Your task to perform on an android device: Clear the shopping cart on costco.com. Add macbook pro 13 inch to the cart on costco.com, then select checkout. Image 0: 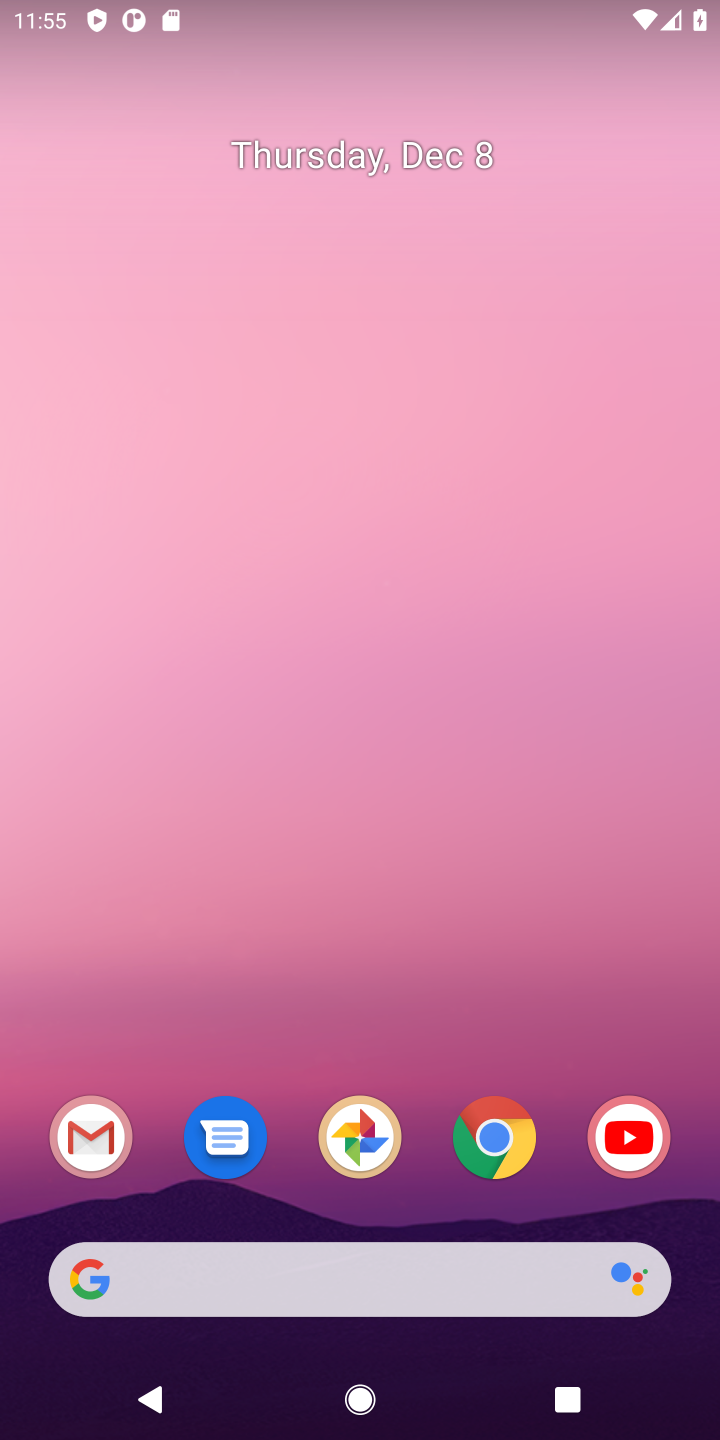
Step 0: click (494, 1132)
Your task to perform on an android device: Clear the shopping cart on costco.com. Add macbook pro 13 inch to the cart on costco.com, then select checkout. Image 1: 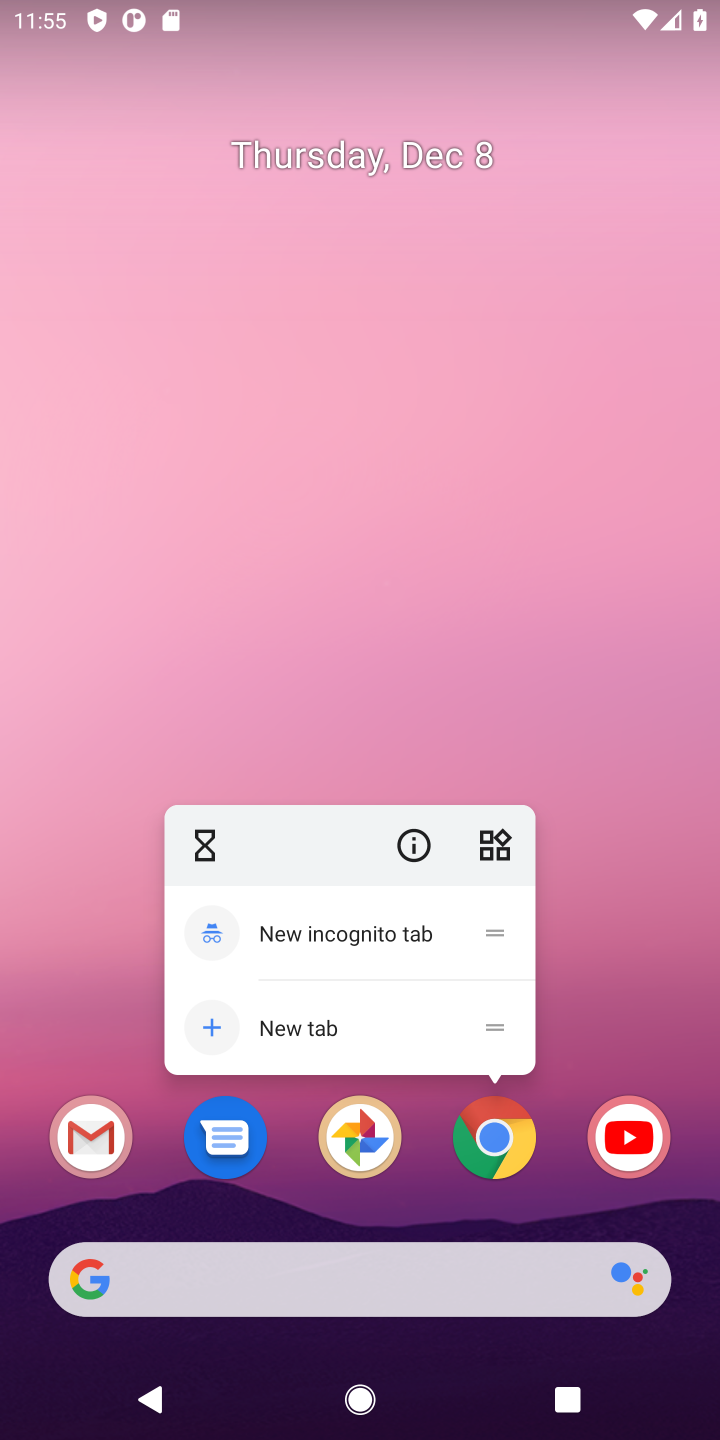
Step 1: click (498, 1128)
Your task to perform on an android device: Clear the shopping cart on costco.com. Add macbook pro 13 inch to the cart on costco.com, then select checkout. Image 2: 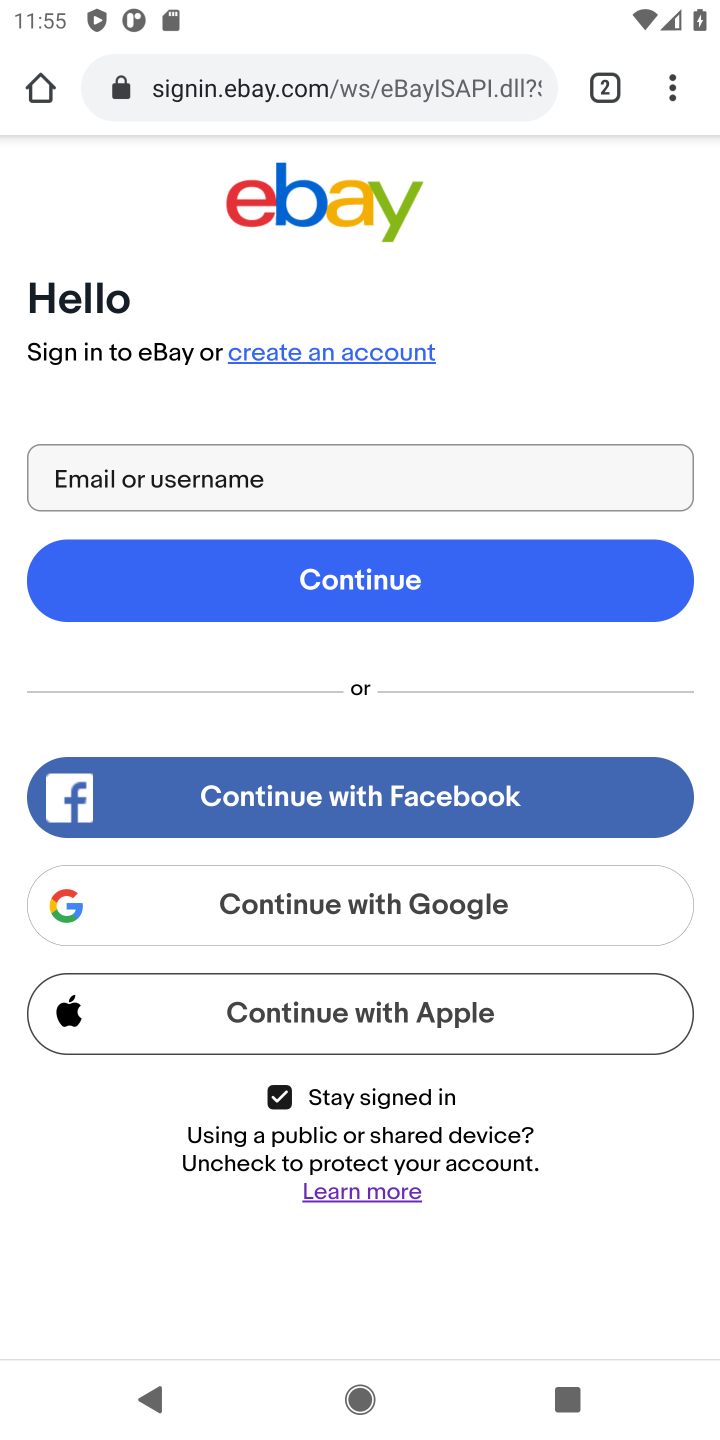
Step 2: click (424, 82)
Your task to perform on an android device: Clear the shopping cart on costco.com. Add macbook pro 13 inch to the cart on costco.com, then select checkout. Image 3: 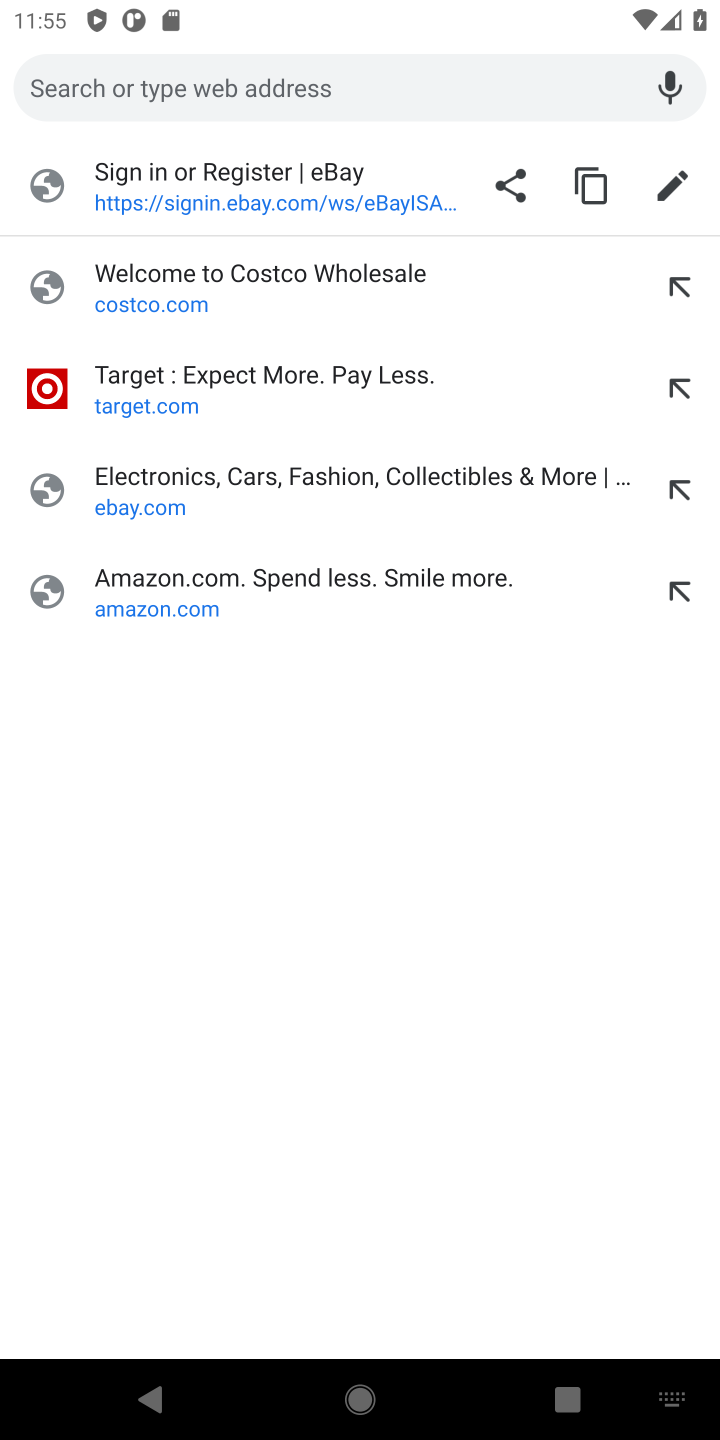
Step 3: click (166, 294)
Your task to perform on an android device: Clear the shopping cart on costco.com. Add macbook pro 13 inch to the cart on costco.com, then select checkout. Image 4: 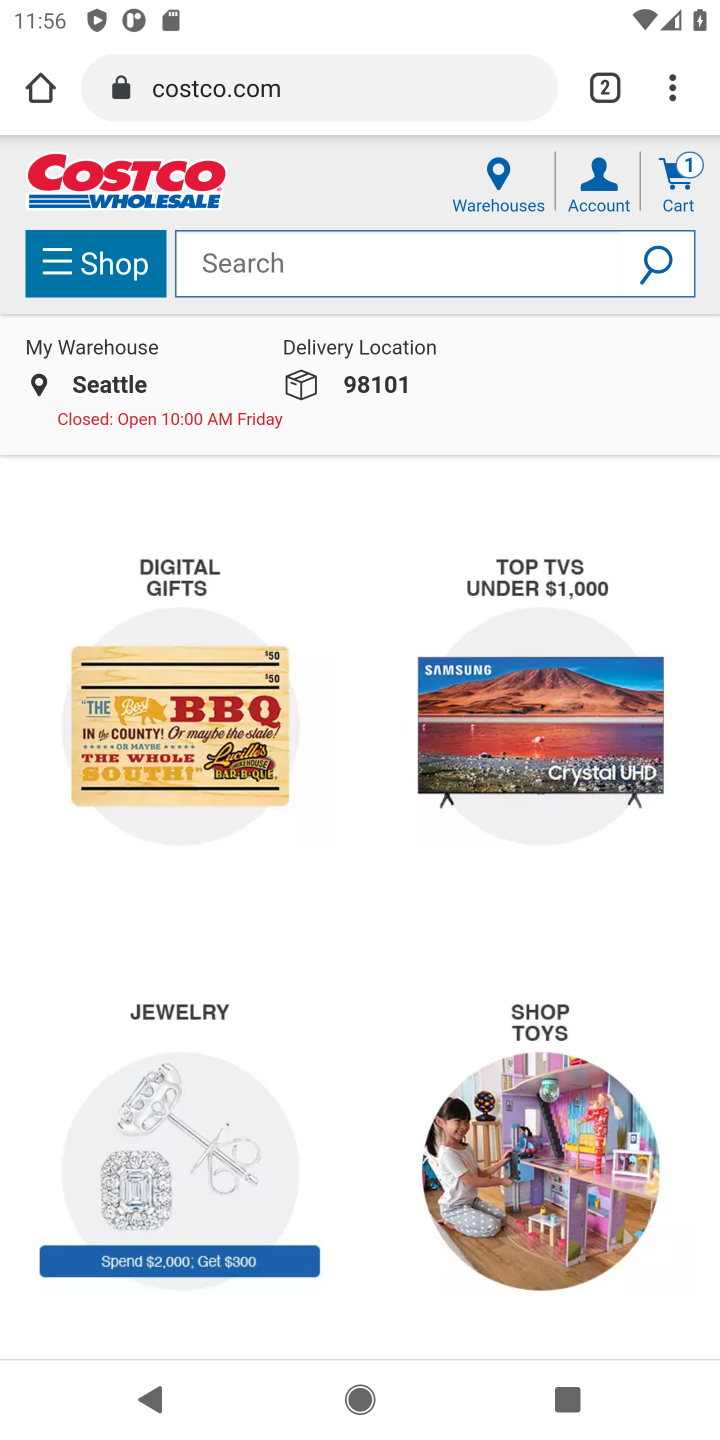
Step 4: click (685, 171)
Your task to perform on an android device: Clear the shopping cart on costco.com. Add macbook pro 13 inch to the cart on costco.com, then select checkout. Image 5: 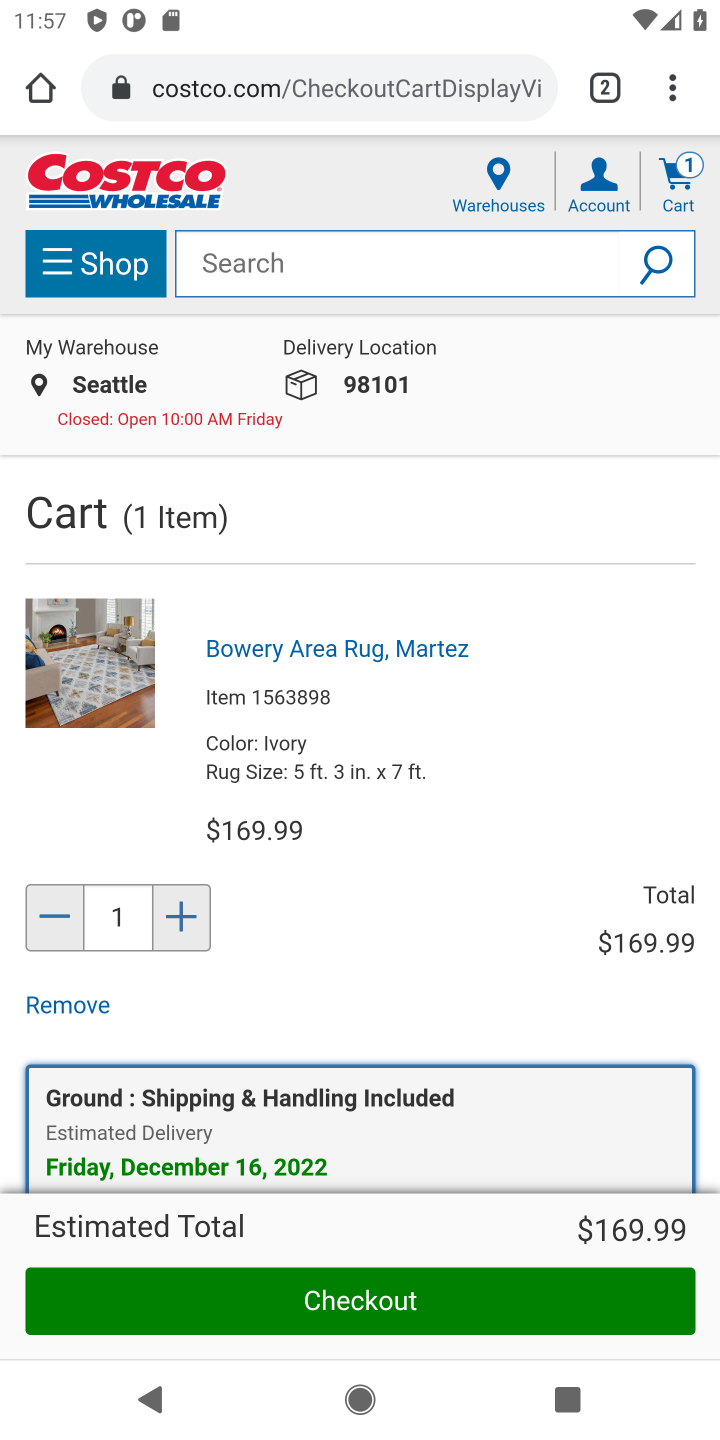
Step 5: click (83, 1005)
Your task to perform on an android device: Clear the shopping cart on costco.com. Add macbook pro 13 inch to the cart on costco.com, then select checkout. Image 6: 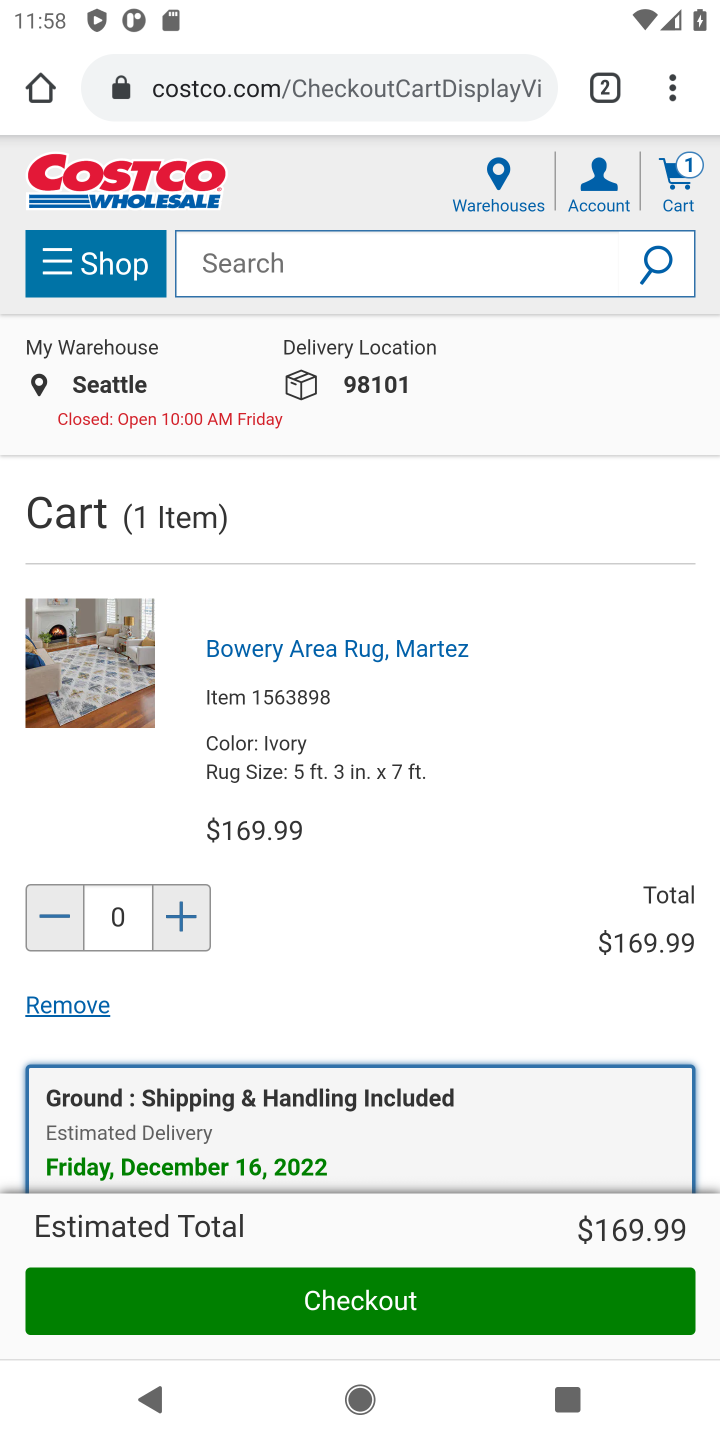
Step 6: click (76, 1009)
Your task to perform on an android device: Clear the shopping cart on costco.com. Add macbook pro 13 inch to the cart on costco.com, then select checkout. Image 7: 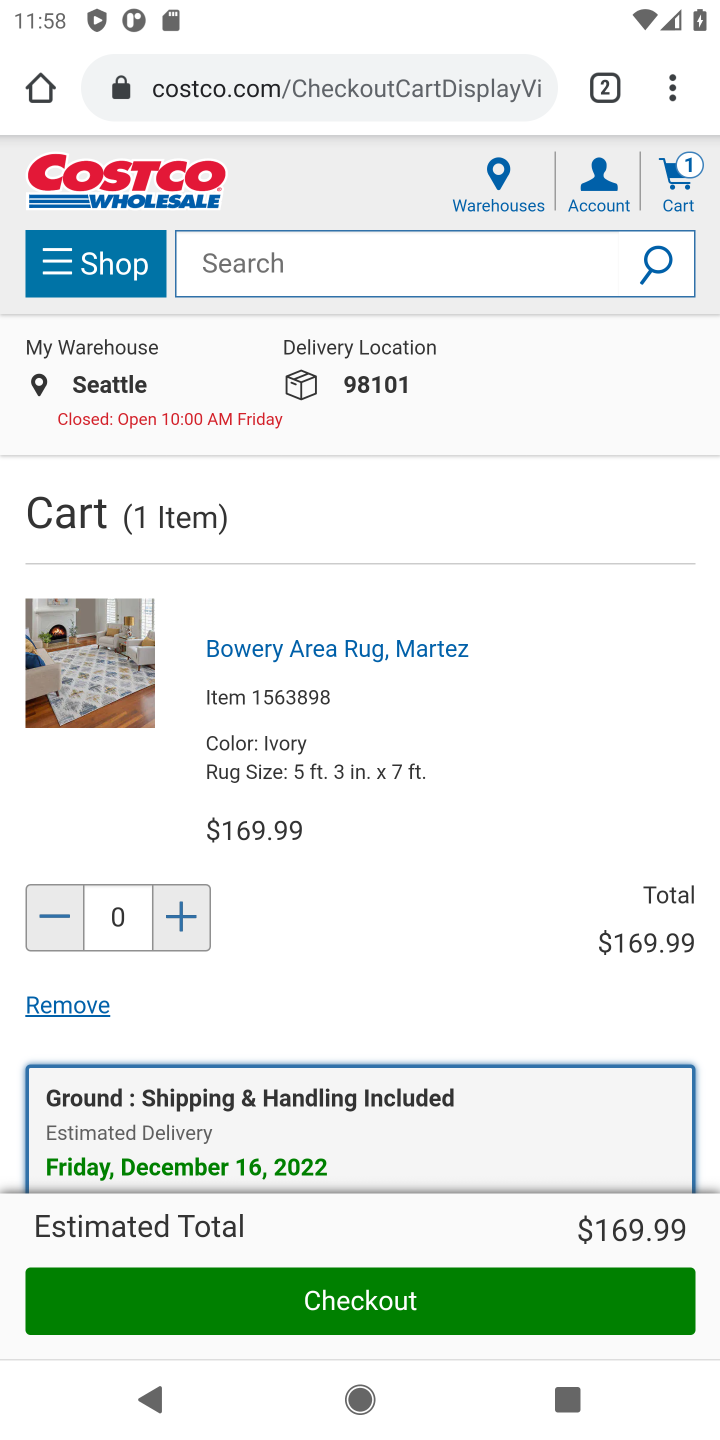
Step 7: click (76, 1009)
Your task to perform on an android device: Clear the shopping cart on costco.com. Add macbook pro 13 inch to the cart on costco.com, then select checkout. Image 8: 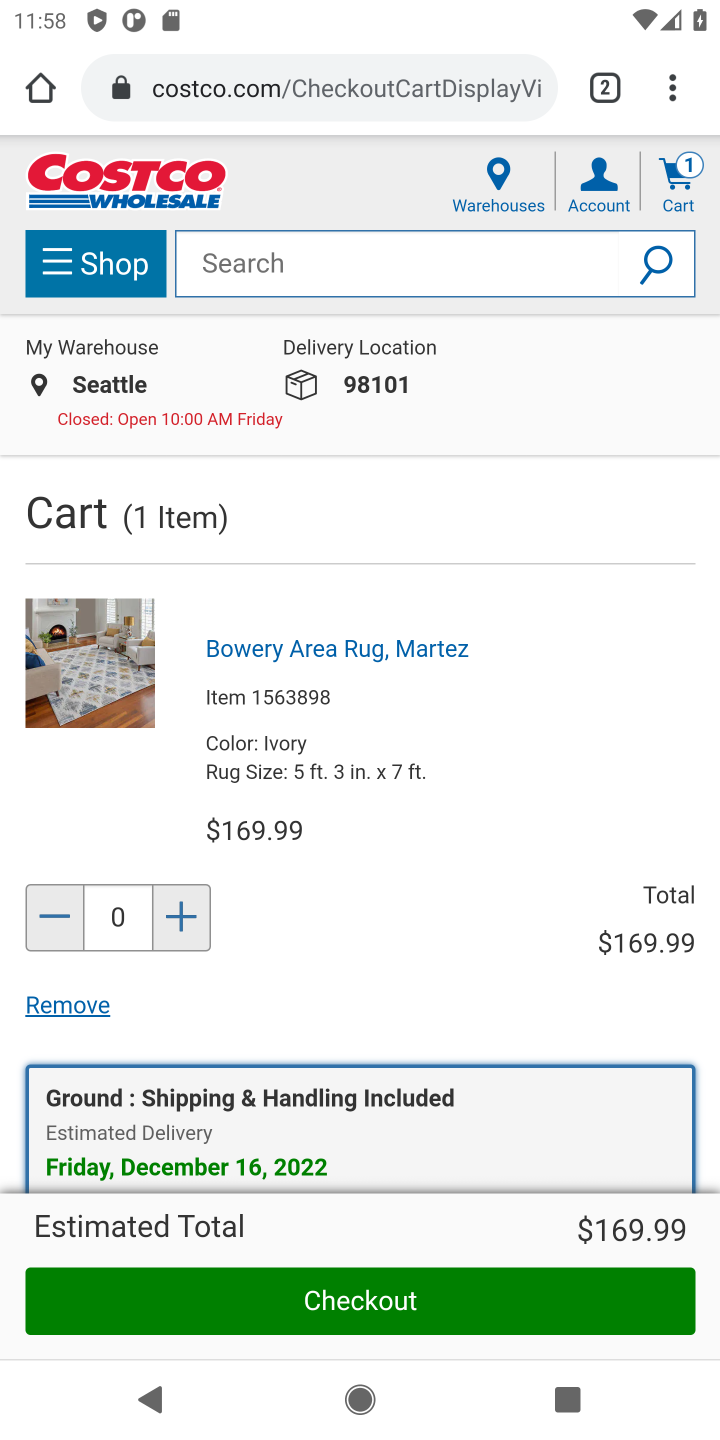
Step 8: click (47, 1006)
Your task to perform on an android device: Clear the shopping cart on costco.com. Add macbook pro 13 inch to the cart on costco.com, then select checkout. Image 9: 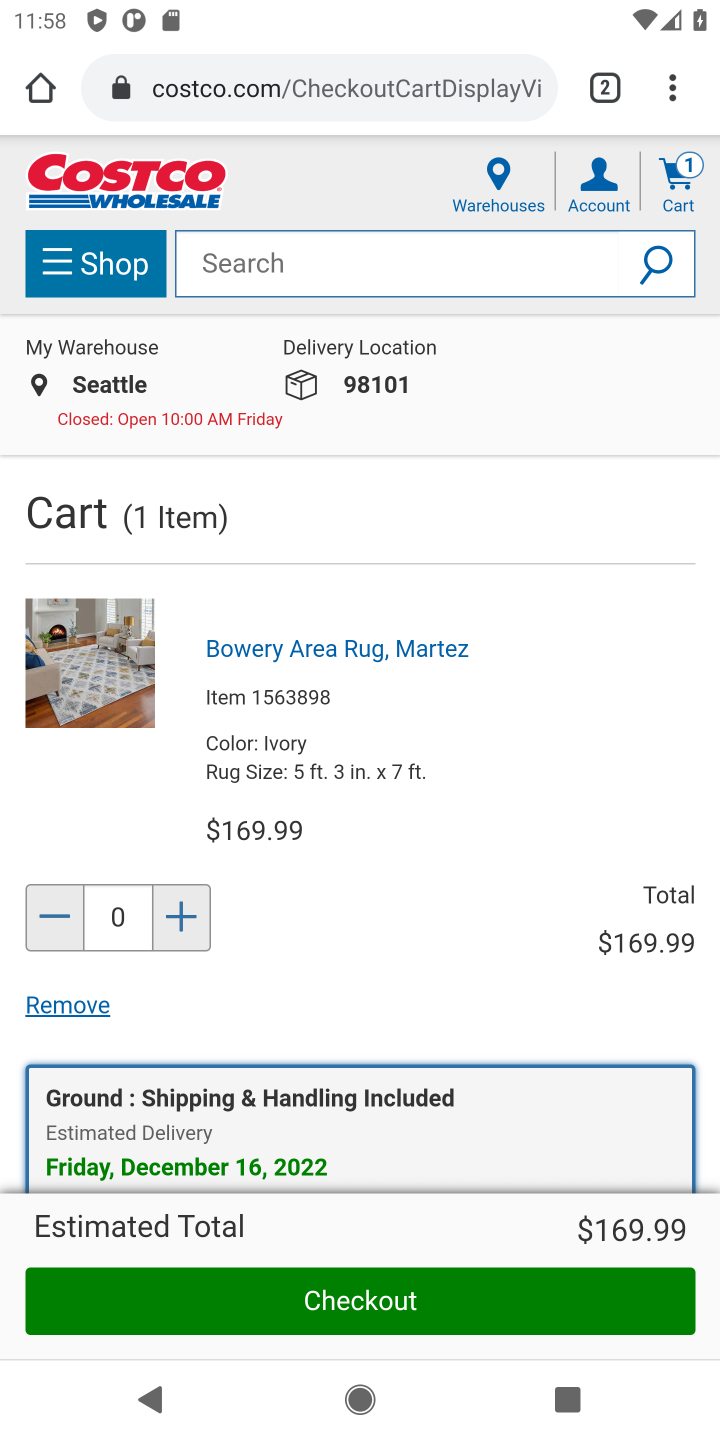
Step 9: click (58, 1006)
Your task to perform on an android device: Clear the shopping cart on costco.com. Add macbook pro 13 inch to the cart on costco.com, then select checkout. Image 10: 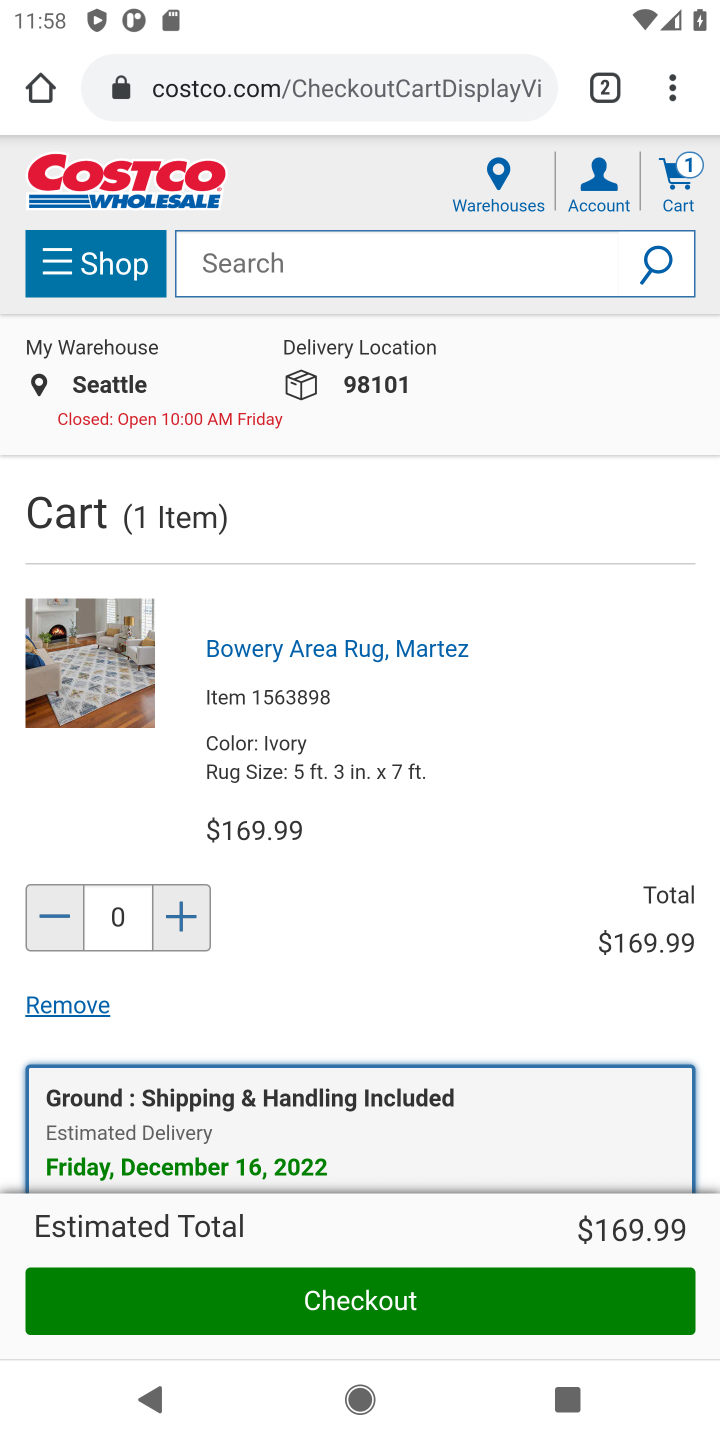
Step 10: task complete